Your task to perform on an android device: Go to Maps Image 0: 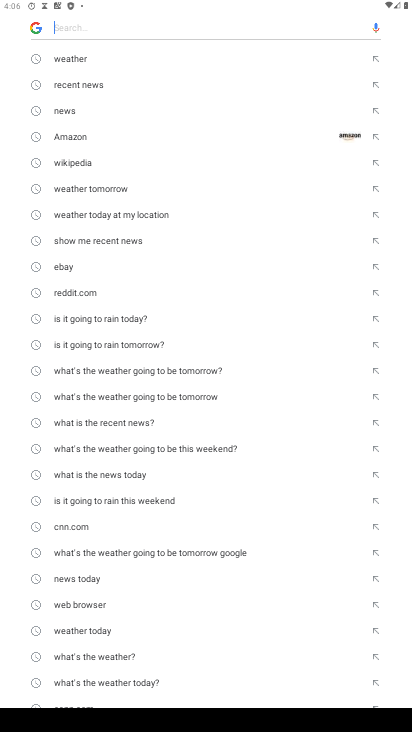
Step 0: press home button
Your task to perform on an android device: Go to Maps Image 1: 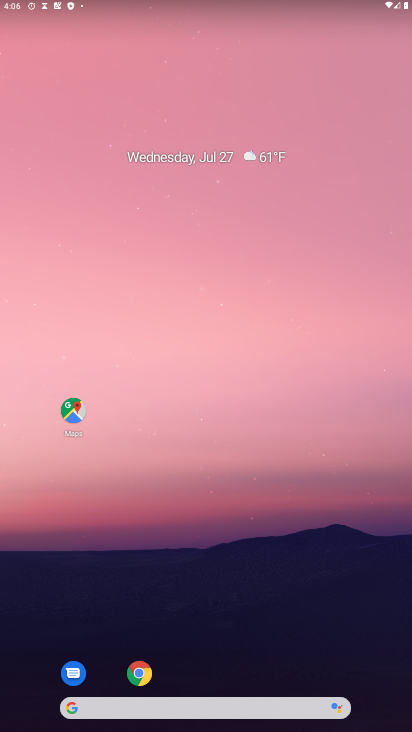
Step 1: drag from (34, 679) to (270, 11)
Your task to perform on an android device: Go to Maps Image 2: 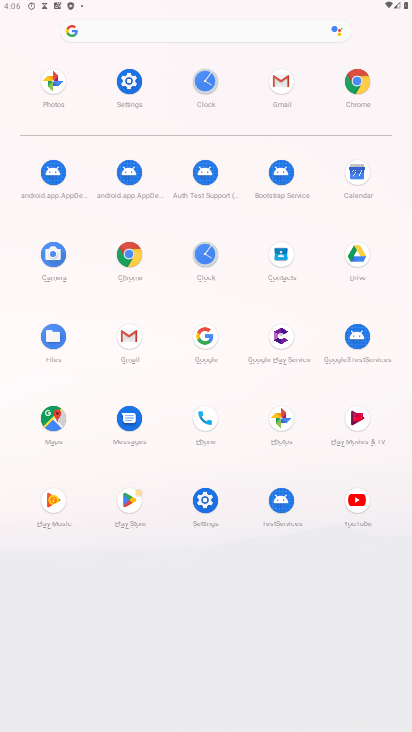
Step 2: click (64, 420)
Your task to perform on an android device: Go to Maps Image 3: 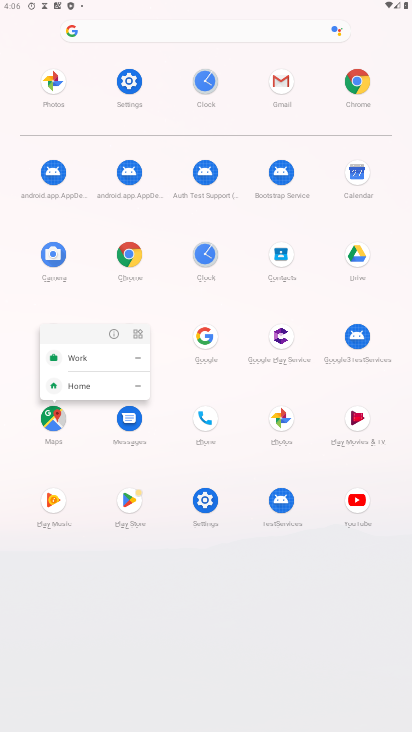
Step 3: click (58, 429)
Your task to perform on an android device: Go to Maps Image 4: 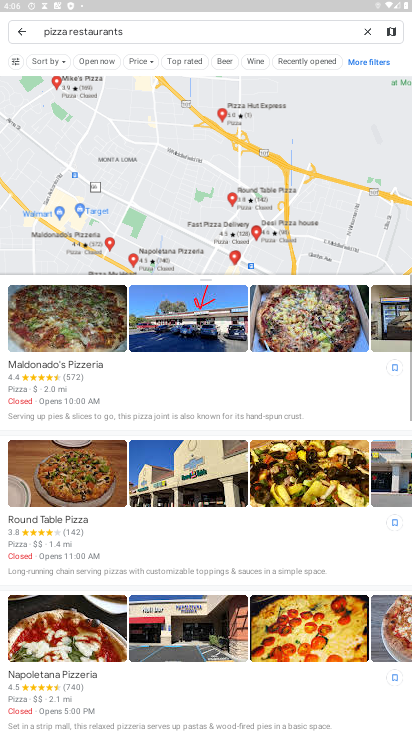
Step 4: click (20, 31)
Your task to perform on an android device: Go to Maps Image 5: 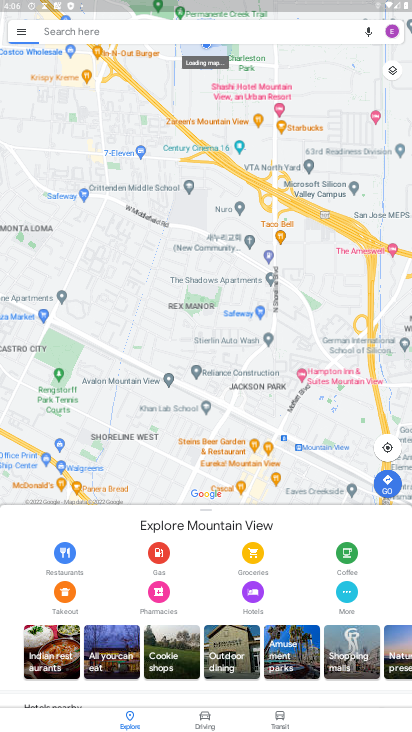
Step 5: task complete